Your task to perform on an android device: open app "Mercado Libre" (install if not already installed) Image 0: 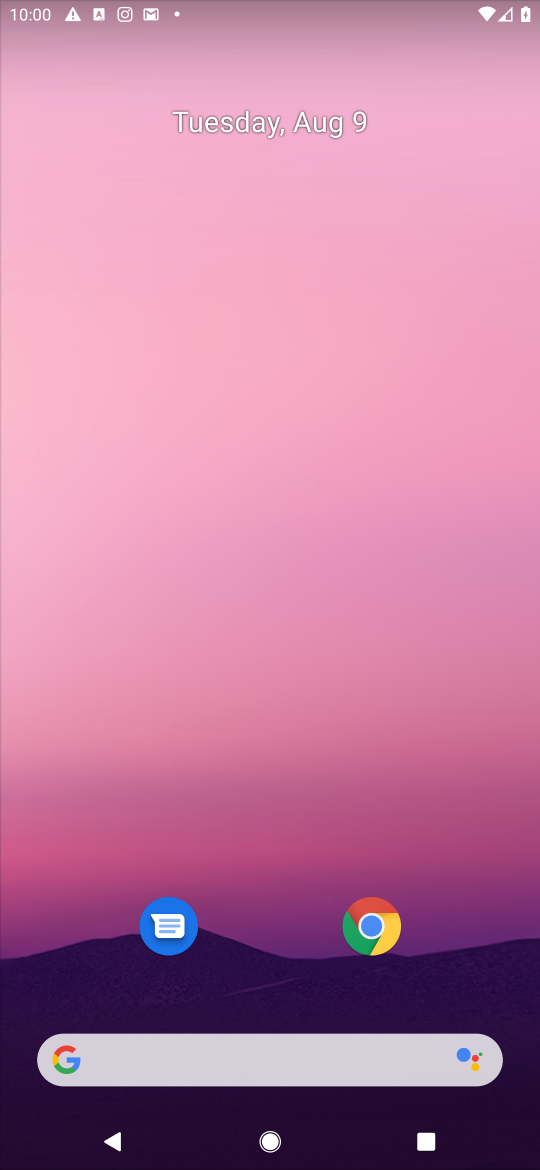
Step 0: drag from (257, 998) to (319, 0)
Your task to perform on an android device: open app "Mercado Libre" (install if not already installed) Image 1: 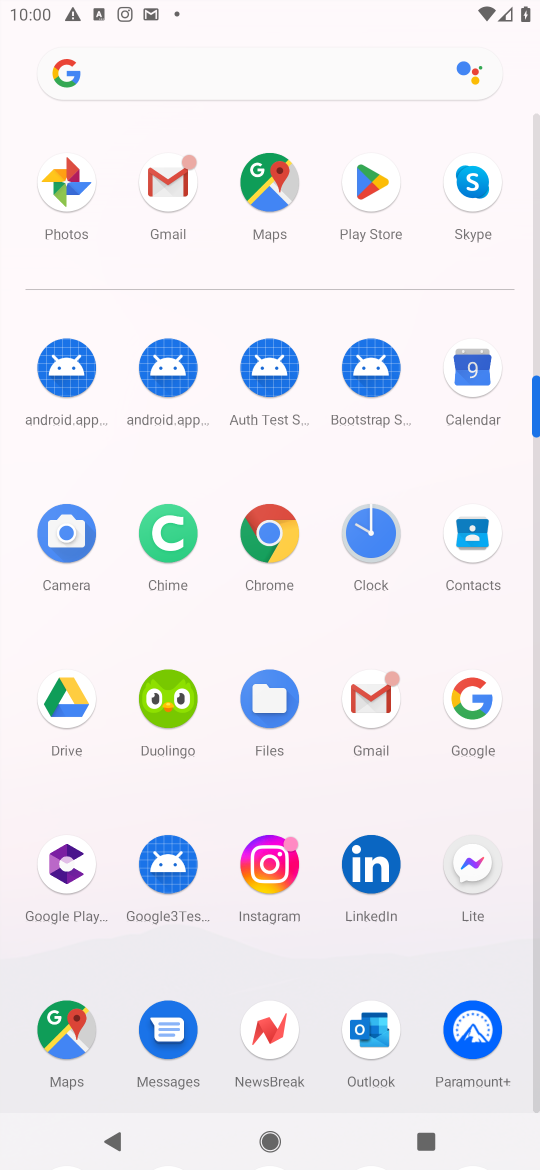
Step 1: click (378, 208)
Your task to perform on an android device: open app "Mercado Libre" (install if not already installed) Image 2: 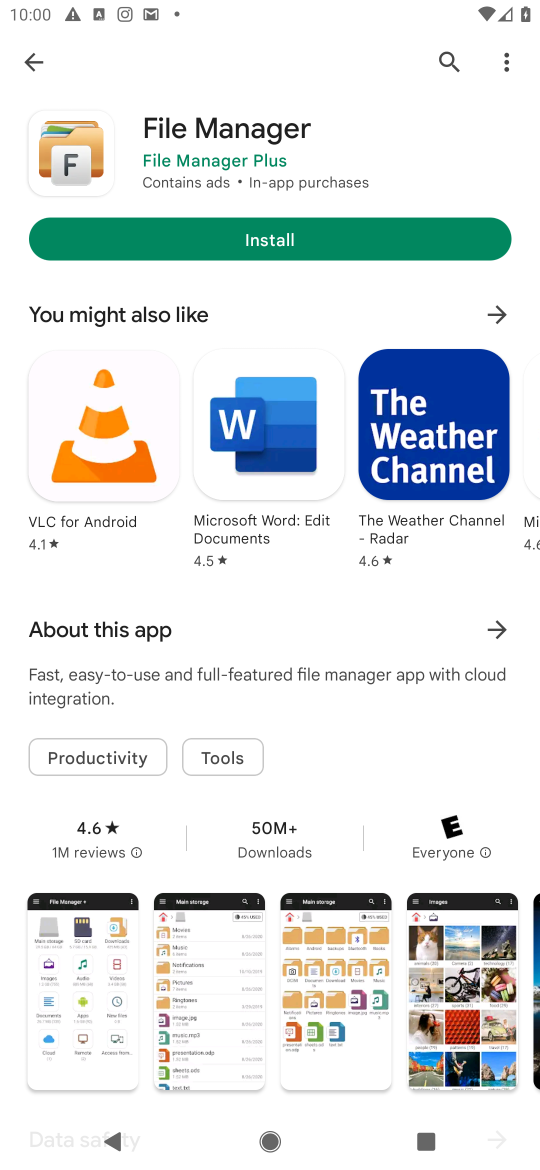
Step 2: click (38, 51)
Your task to perform on an android device: open app "Mercado Libre" (install if not already installed) Image 3: 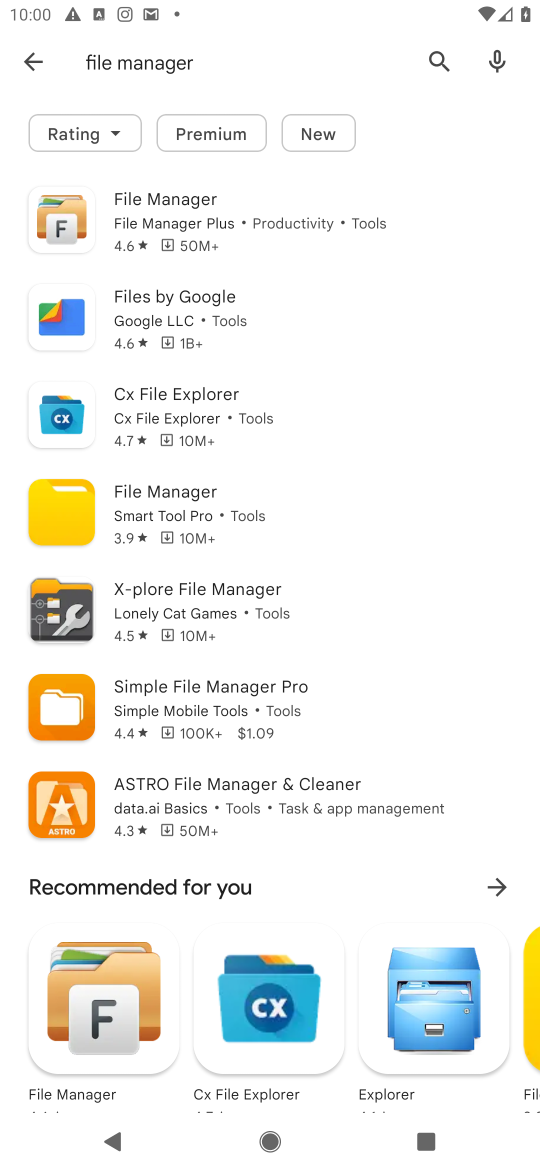
Step 3: click (201, 57)
Your task to perform on an android device: open app "Mercado Libre" (install if not already installed) Image 4: 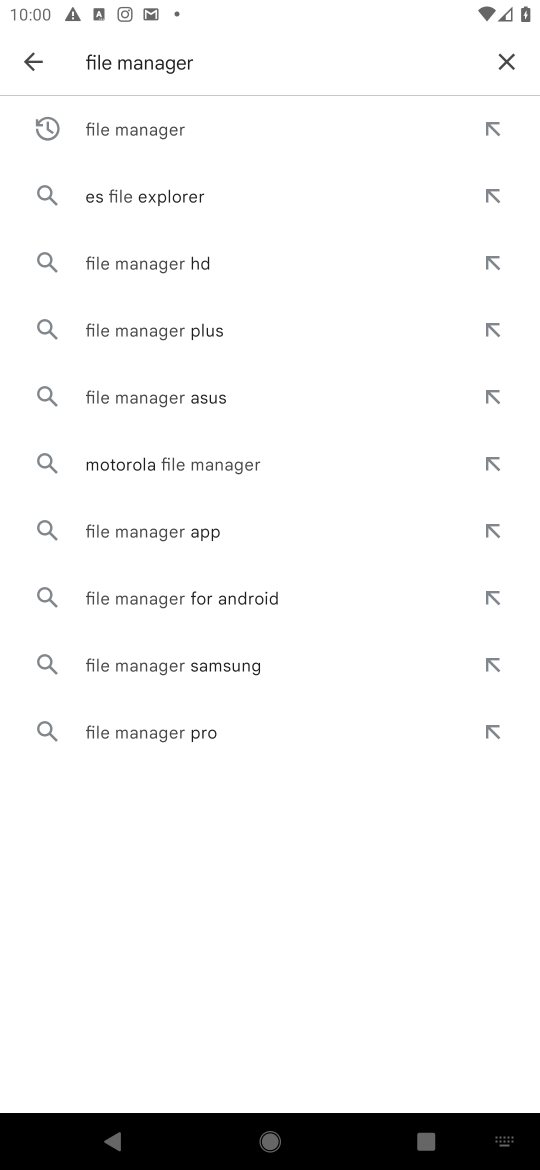
Step 4: click (506, 54)
Your task to perform on an android device: open app "Mercado Libre" (install if not already installed) Image 5: 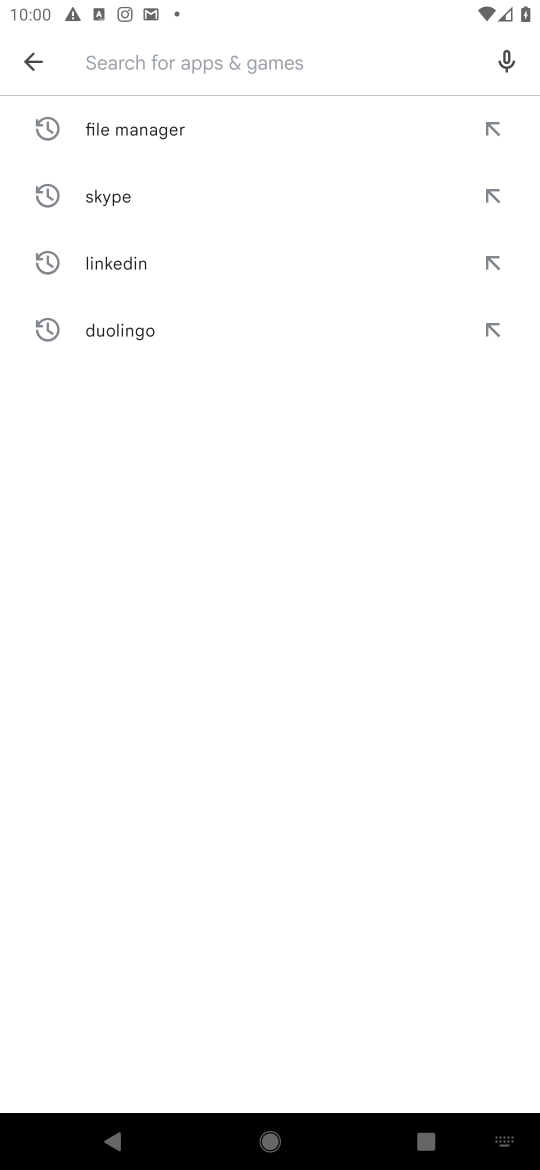
Step 5: type "mercado Libre"
Your task to perform on an android device: open app "Mercado Libre" (install if not already installed) Image 6: 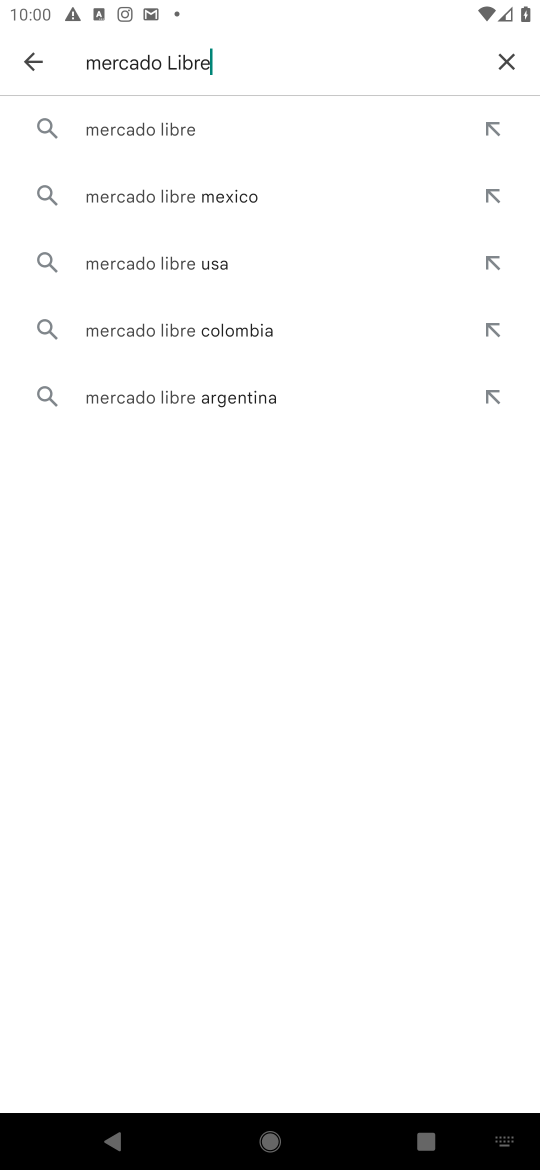
Step 6: click (161, 126)
Your task to perform on an android device: open app "Mercado Libre" (install if not already installed) Image 7: 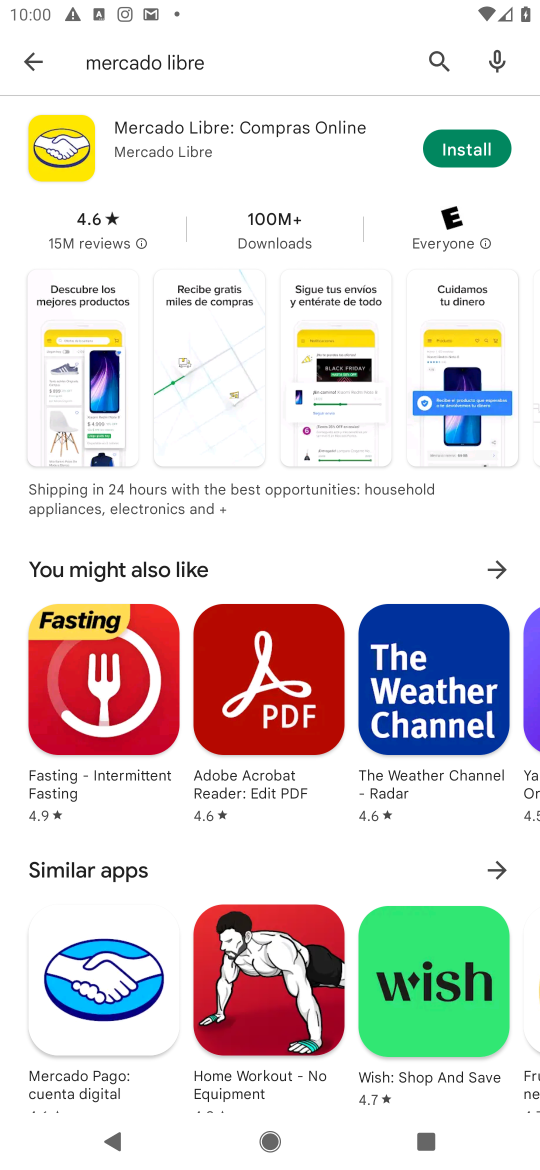
Step 7: click (486, 140)
Your task to perform on an android device: open app "Mercado Libre" (install if not already installed) Image 8: 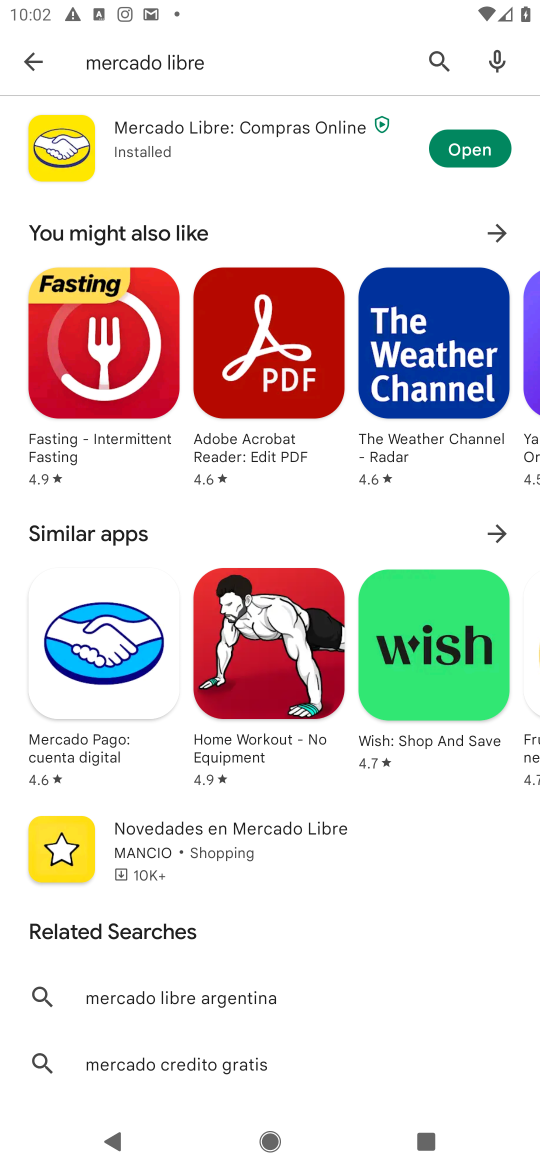
Step 8: click (469, 141)
Your task to perform on an android device: open app "Mercado Libre" (install if not already installed) Image 9: 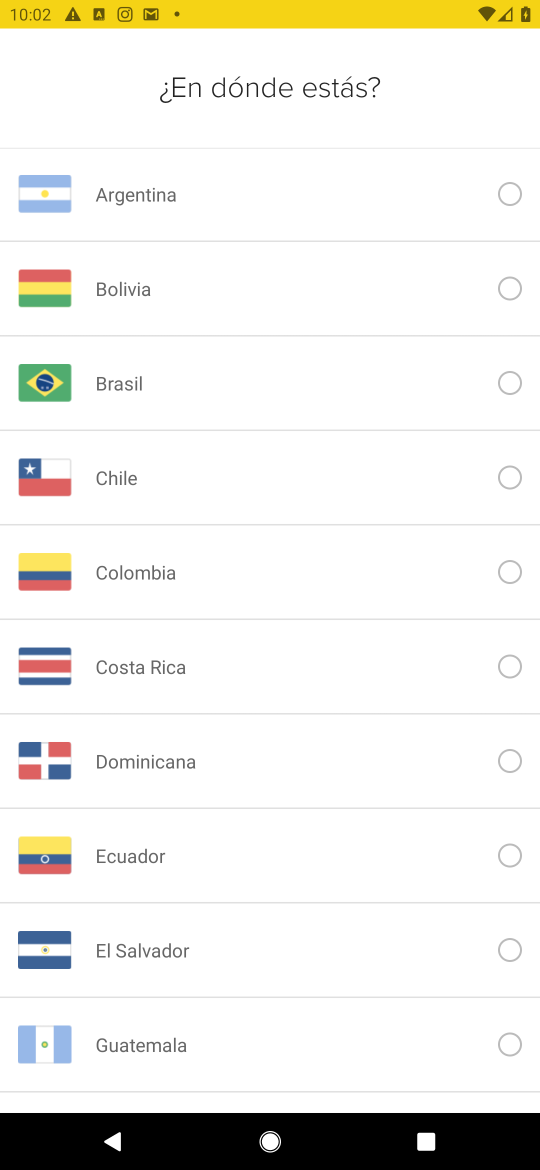
Step 9: task complete